Your task to perform on an android device: Open calendar and show me the first week of next month Image 0: 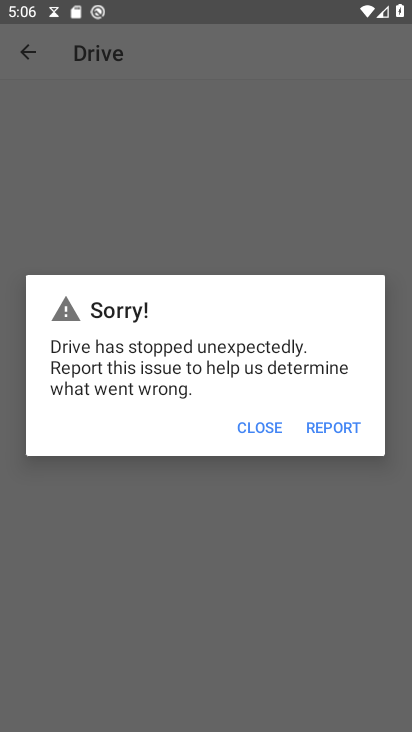
Step 0: press home button
Your task to perform on an android device: Open calendar and show me the first week of next month Image 1: 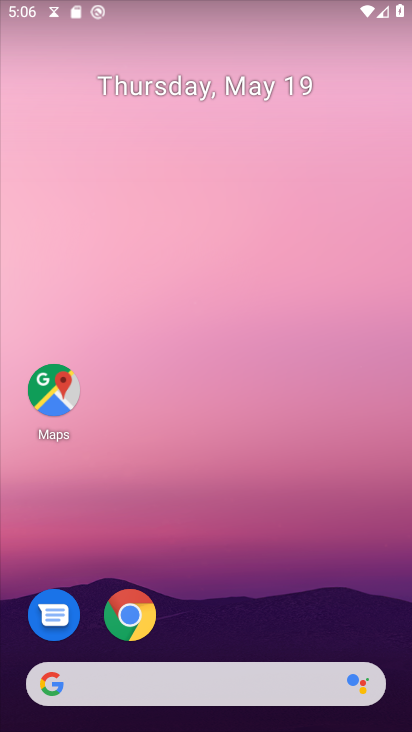
Step 1: drag from (224, 698) to (247, 7)
Your task to perform on an android device: Open calendar and show me the first week of next month Image 2: 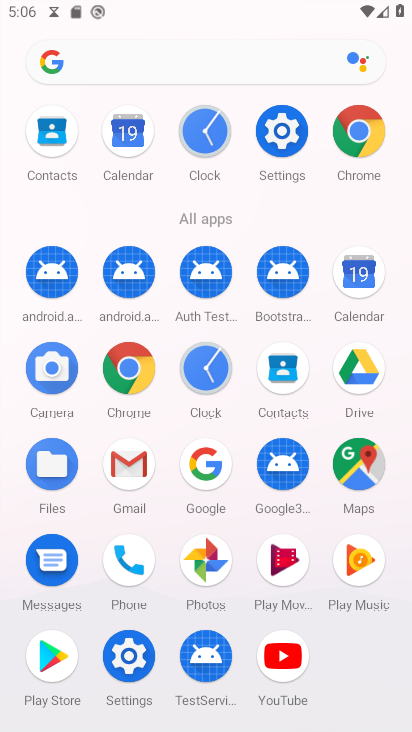
Step 2: click (337, 270)
Your task to perform on an android device: Open calendar and show me the first week of next month Image 3: 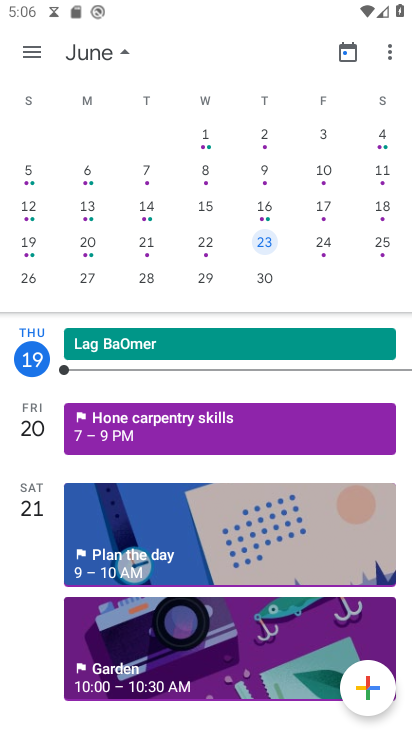
Step 3: drag from (361, 200) to (331, 219)
Your task to perform on an android device: Open calendar and show me the first week of next month Image 4: 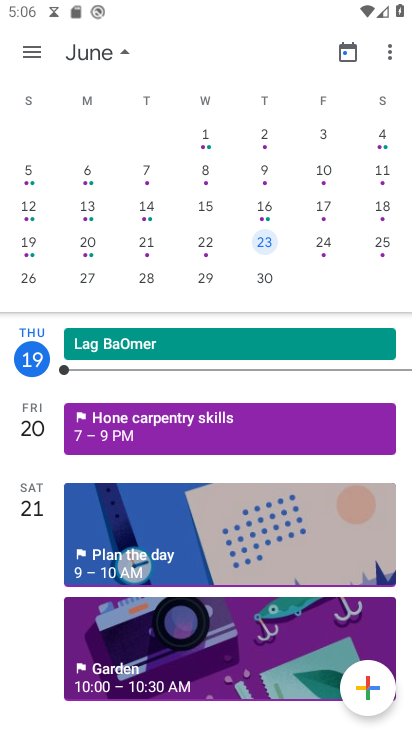
Step 4: click (324, 138)
Your task to perform on an android device: Open calendar and show me the first week of next month Image 5: 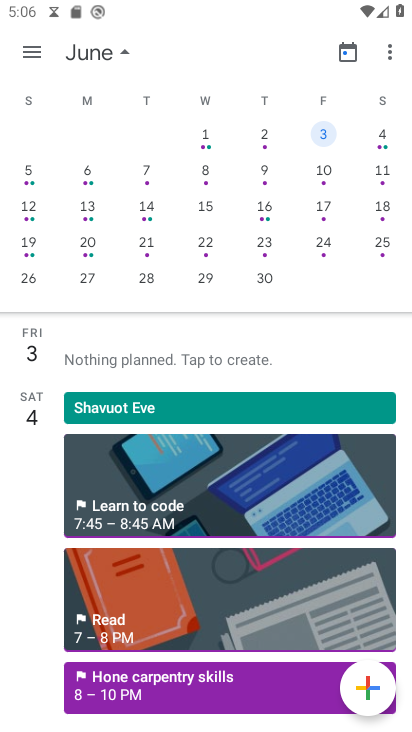
Step 5: click (34, 56)
Your task to perform on an android device: Open calendar and show me the first week of next month Image 6: 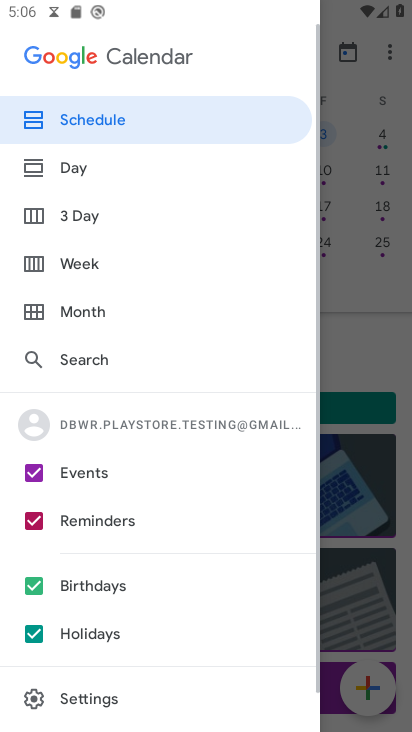
Step 6: click (84, 261)
Your task to perform on an android device: Open calendar and show me the first week of next month Image 7: 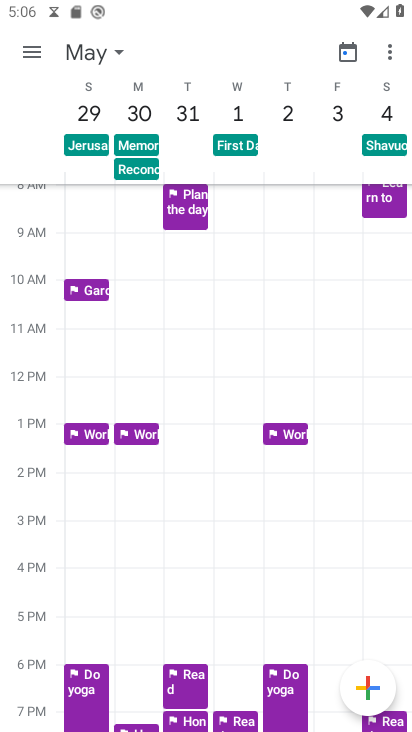
Step 7: task complete